Your task to perform on an android device: Open calendar and show me the first week of next month Image 0: 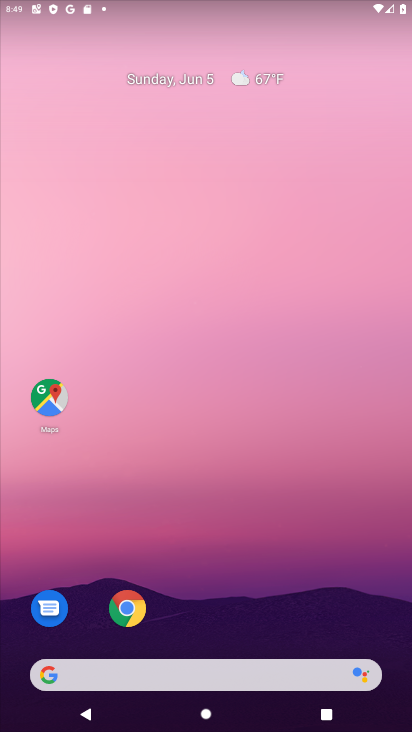
Step 0: press home button
Your task to perform on an android device: Open calendar and show me the first week of next month Image 1: 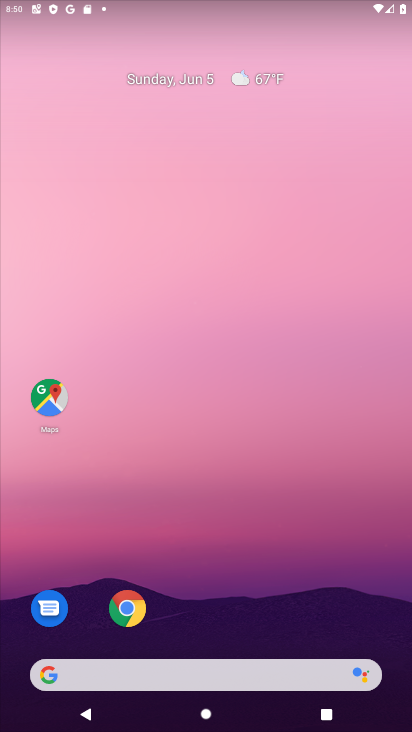
Step 1: drag from (21, 525) to (253, 101)
Your task to perform on an android device: Open calendar and show me the first week of next month Image 2: 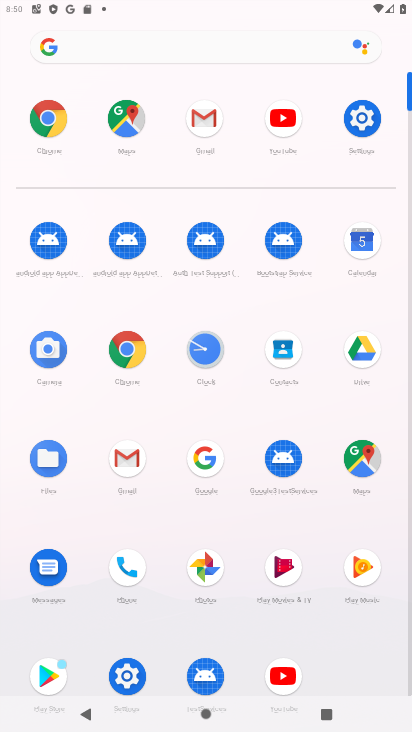
Step 2: click (360, 248)
Your task to perform on an android device: Open calendar and show me the first week of next month Image 3: 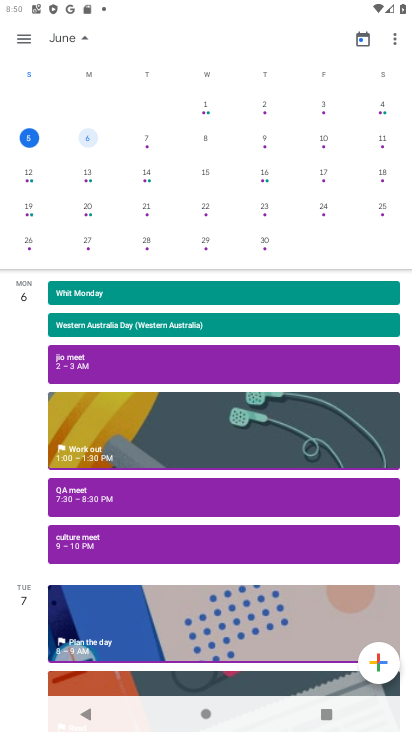
Step 3: drag from (405, 147) to (7, 202)
Your task to perform on an android device: Open calendar and show me the first week of next month Image 4: 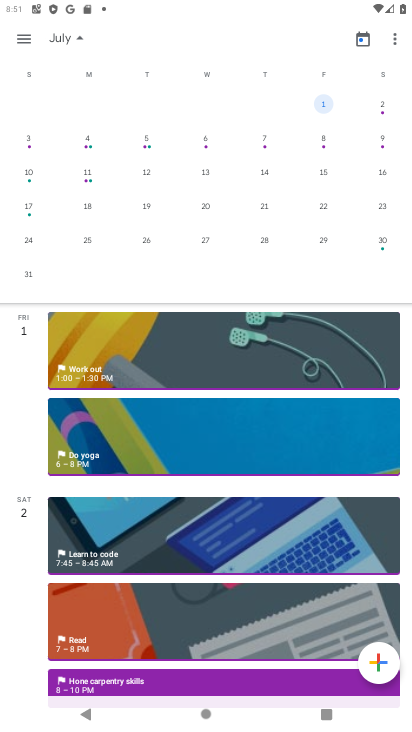
Step 4: click (88, 146)
Your task to perform on an android device: Open calendar and show me the first week of next month Image 5: 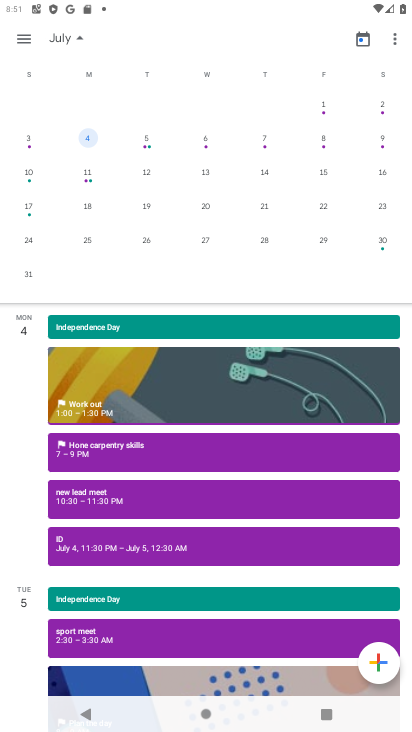
Step 5: click (144, 144)
Your task to perform on an android device: Open calendar and show me the first week of next month Image 6: 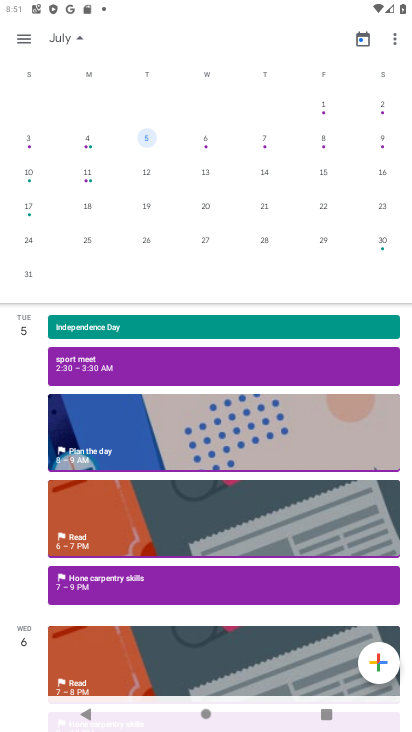
Step 6: click (207, 146)
Your task to perform on an android device: Open calendar and show me the first week of next month Image 7: 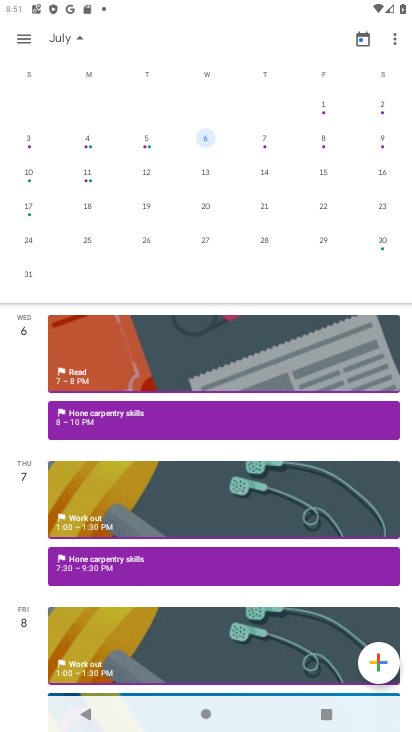
Step 7: click (267, 149)
Your task to perform on an android device: Open calendar and show me the first week of next month Image 8: 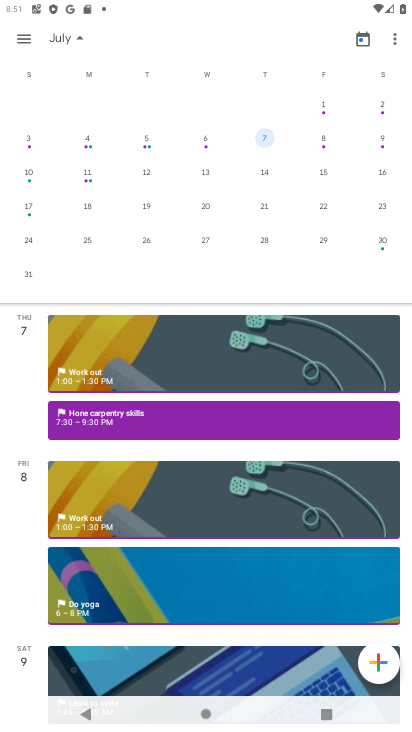
Step 8: task complete